Your task to perform on an android device: Show me popular games on the Play Store Image 0: 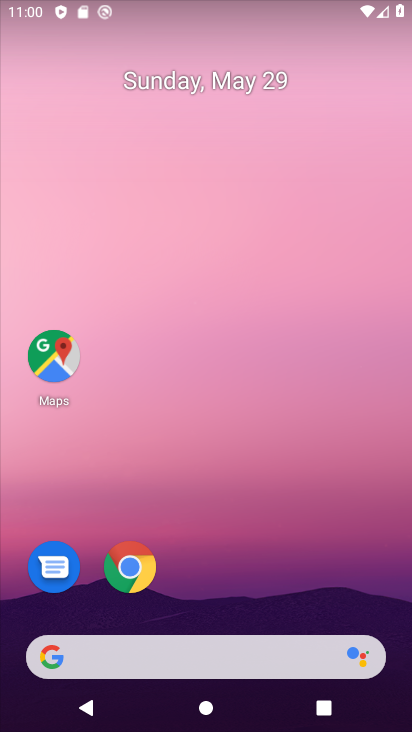
Step 0: drag from (214, 631) to (165, 70)
Your task to perform on an android device: Show me popular games on the Play Store Image 1: 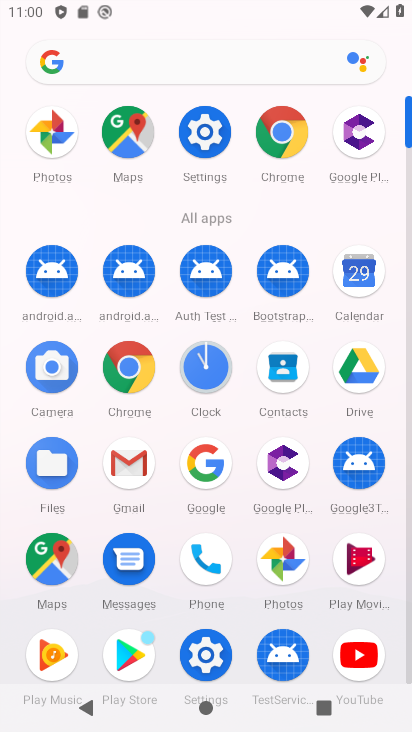
Step 1: click (142, 658)
Your task to perform on an android device: Show me popular games on the Play Store Image 2: 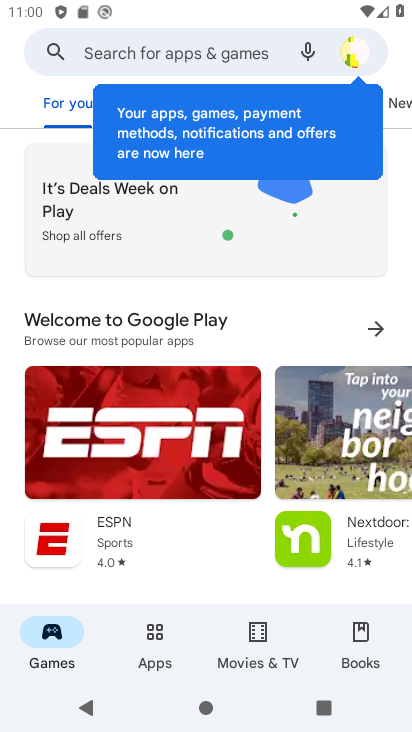
Step 2: drag from (132, 492) to (107, 80)
Your task to perform on an android device: Show me popular games on the Play Store Image 3: 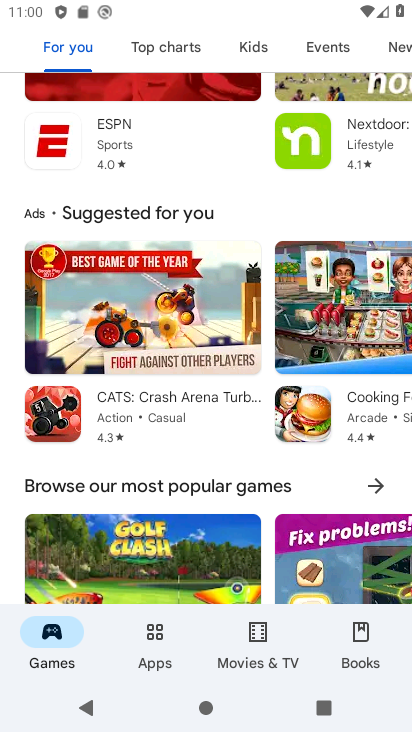
Step 3: drag from (162, 446) to (167, 353)
Your task to perform on an android device: Show me popular games on the Play Store Image 4: 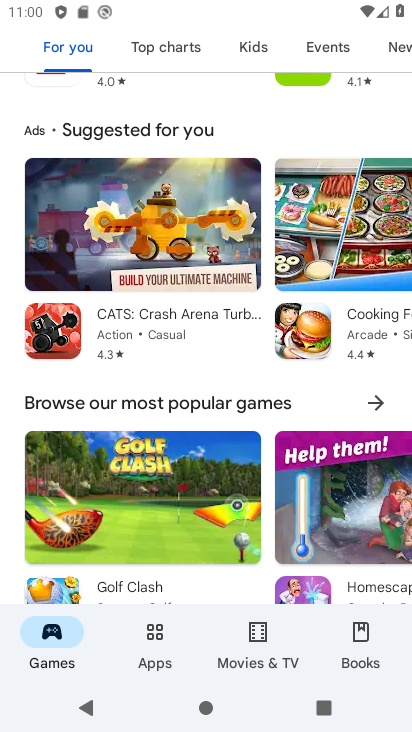
Step 4: drag from (388, 450) to (376, 345)
Your task to perform on an android device: Show me popular games on the Play Store Image 5: 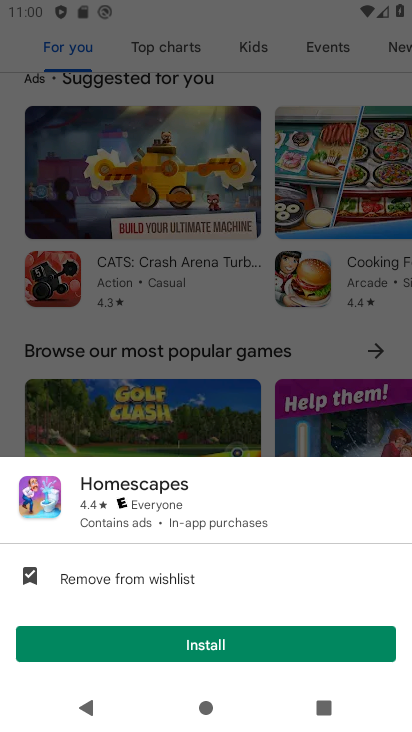
Step 5: click (373, 348)
Your task to perform on an android device: Show me popular games on the Play Store Image 6: 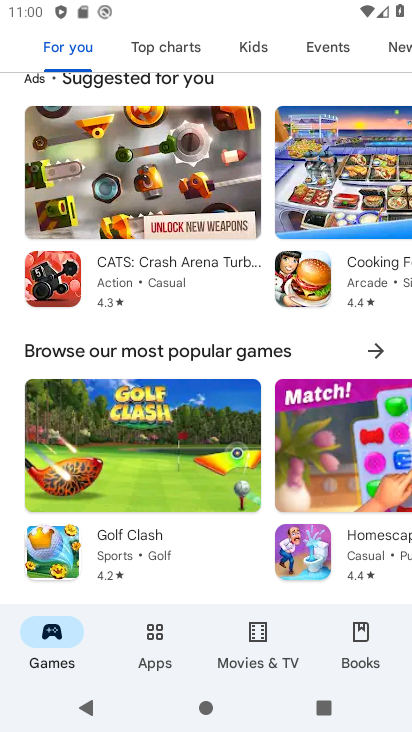
Step 6: click (372, 349)
Your task to perform on an android device: Show me popular games on the Play Store Image 7: 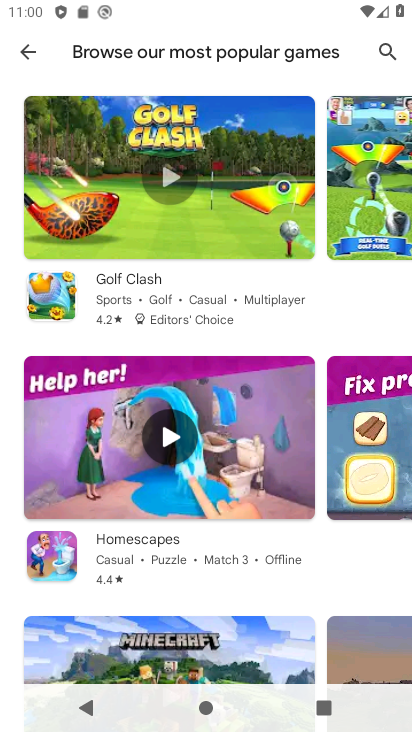
Step 7: task complete